Your task to perform on an android device: choose inbox layout in the gmail app Image 0: 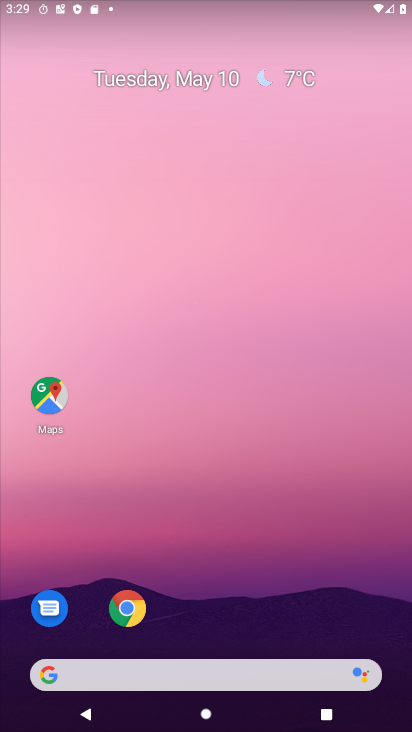
Step 0: drag from (339, 624) to (339, 60)
Your task to perform on an android device: choose inbox layout in the gmail app Image 1: 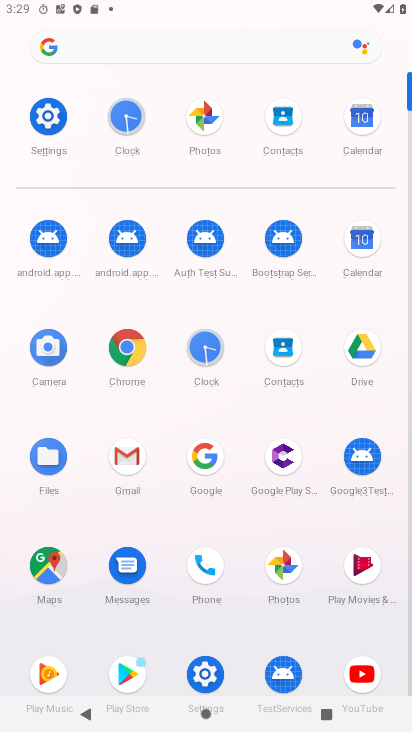
Step 1: click (132, 457)
Your task to perform on an android device: choose inbox layout in the gmail app Image 2: 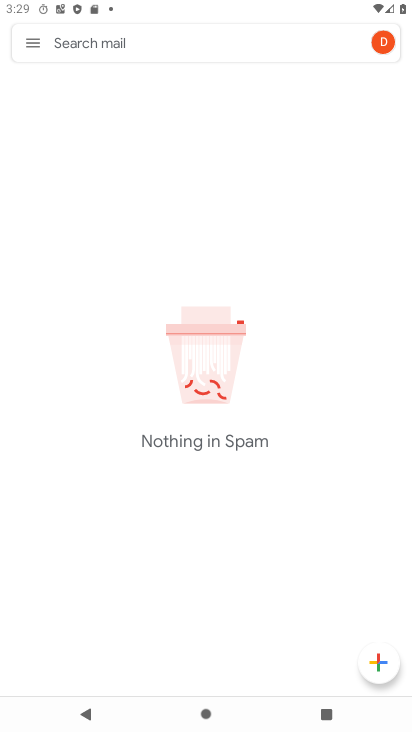
Step 2: click (31, 38)
Your task to perform on an android device: choose inbox layout in the gmail app Image 3: 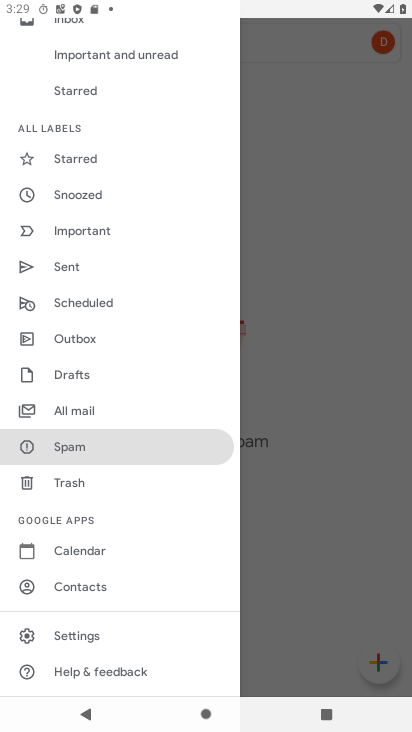
Step 3: click (61, 642)
Your task to perform on an android device: choose inbox layout in the gmail app Image 4: 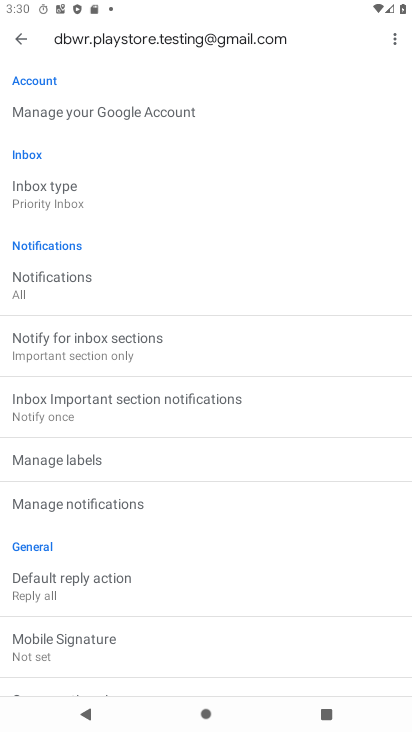
Step 4: click (41, 201)
Your task to perform on an android device: choose inbox layout in the gmail app Image 5: 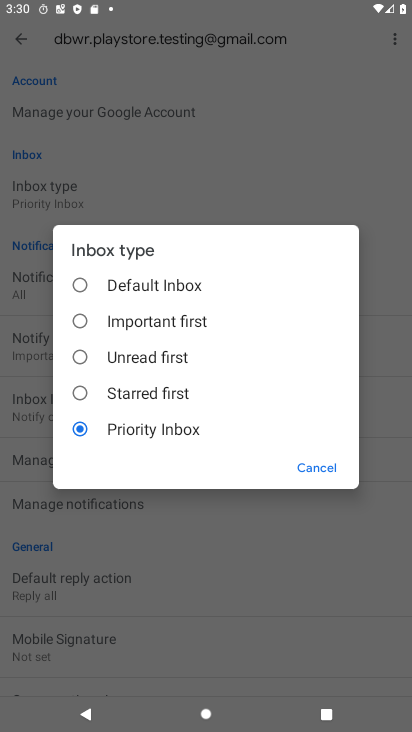
Step 5: click (80, 362)
Your task to perform on an android device: choose inbox layout in the gmail app Image 6: 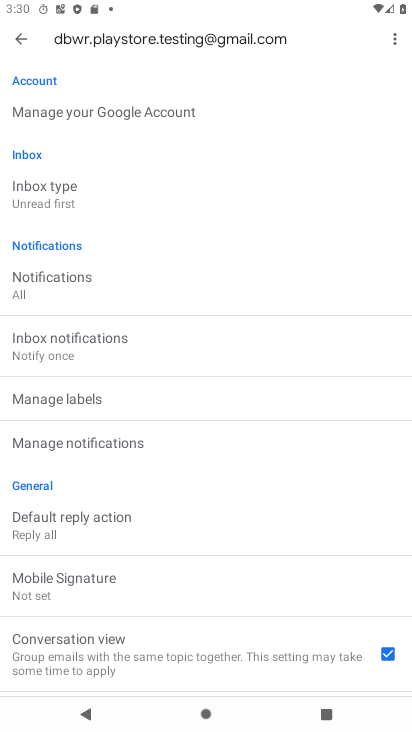
Step 6: task complete